Your task to perform on an android device: install app "Truecaller" Image 0: 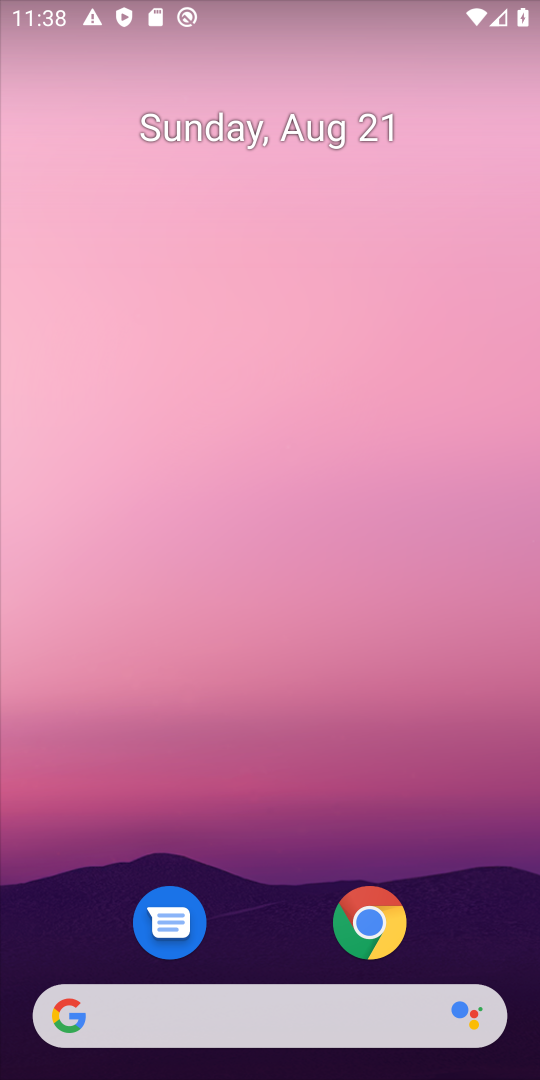
Step 0: drag from (258, 973) to (326, 7)
Your task to perform on an android device: install app "Truecaller" Image 1: 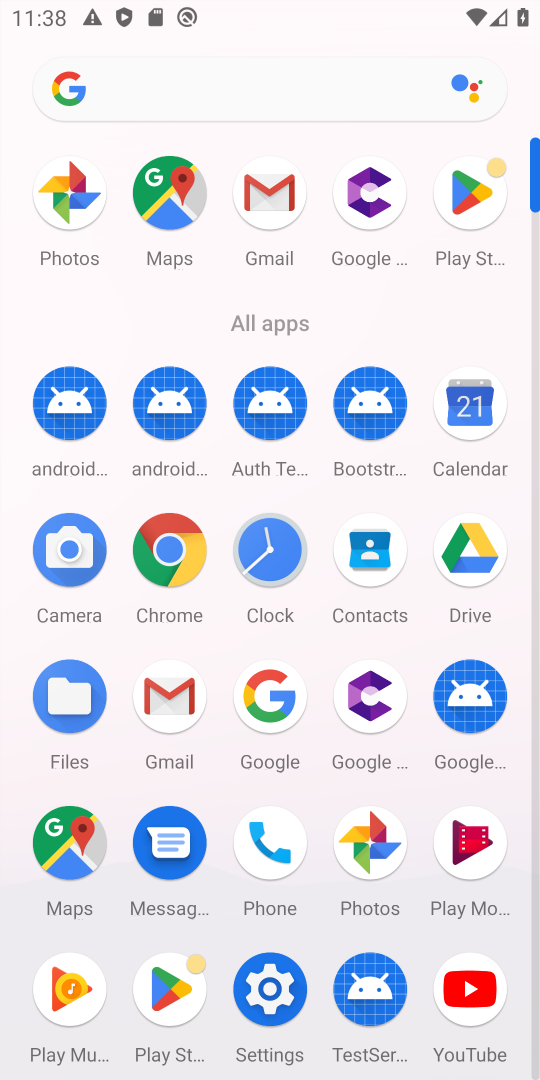
Step 1: click (172, 972)
Your task to perform on an android device: install app "Truecaller" Image 2: 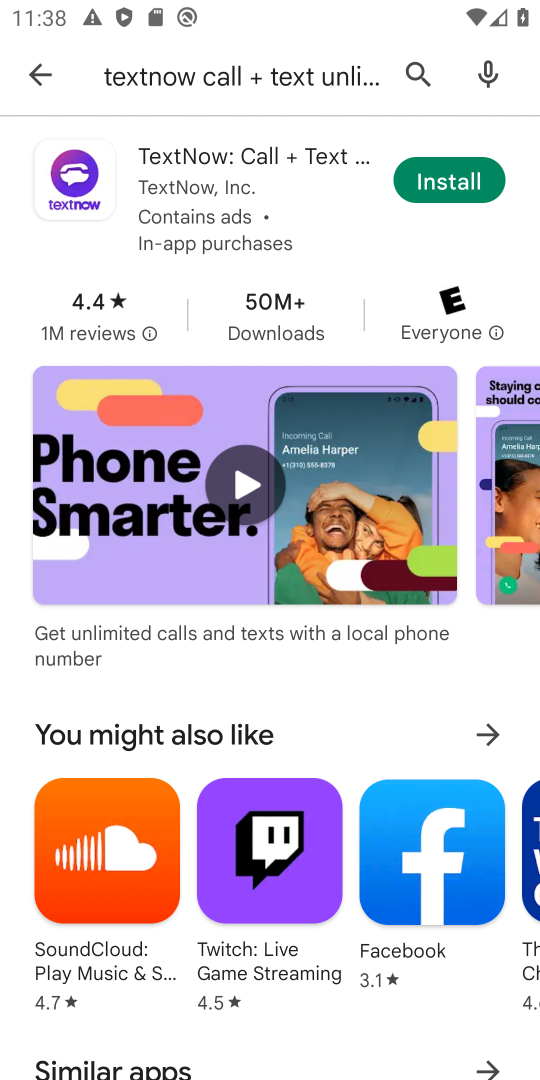
Step 2: click (46, 72)
Your task to perform on an android device: install app "Truecaller" Image 3: 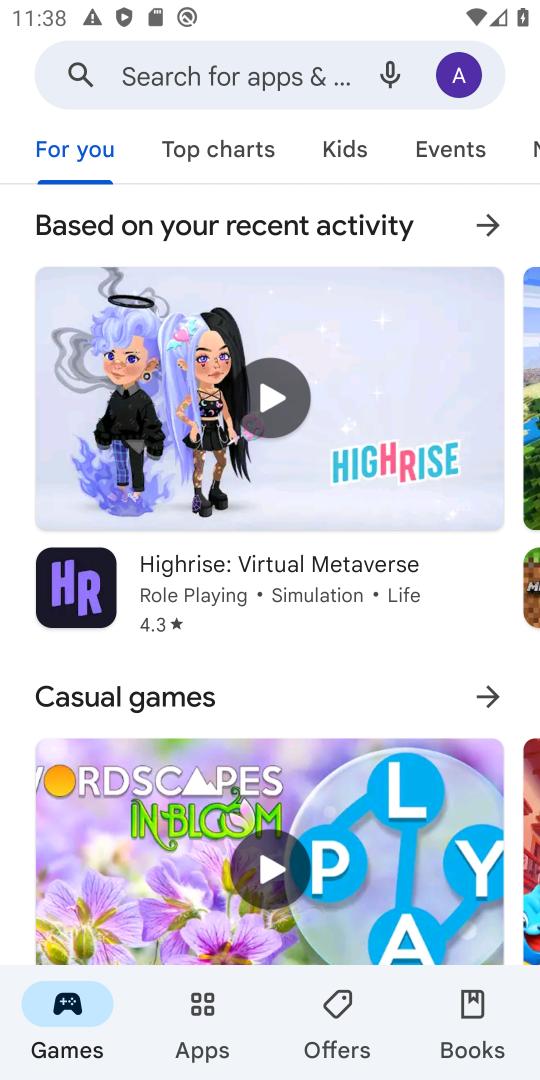
Step 3: type "Truecaller"
Your task to perform on an android device: install app "Truecaller" Image 4: 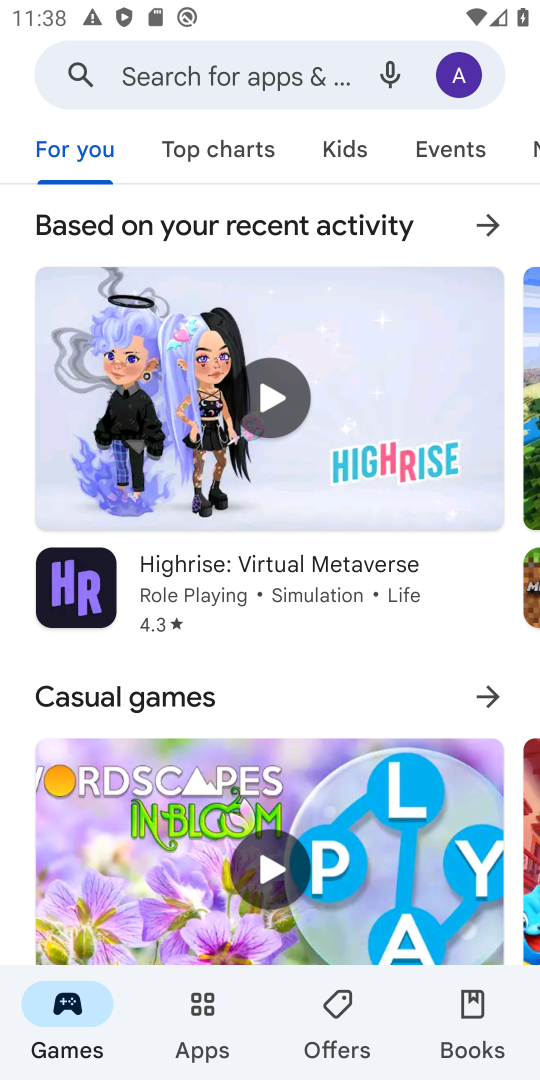
Step 4: click (187, 87)
Your task to perform on an android device: install app "Truecaller" Image 5: 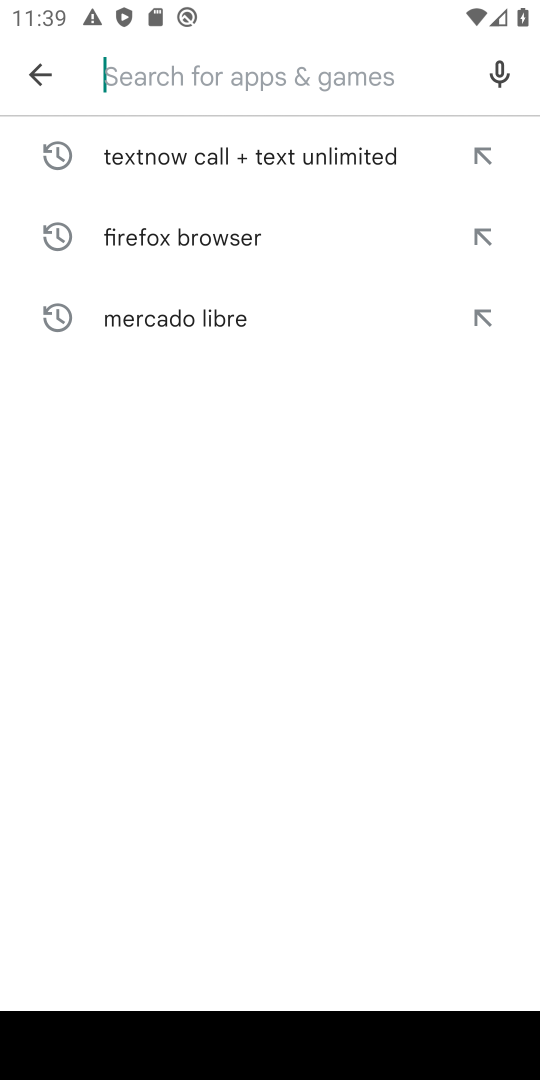
Step 5: type "Truecaller"
Your task to perform on an android device: install app "Truecaller" Image 6: 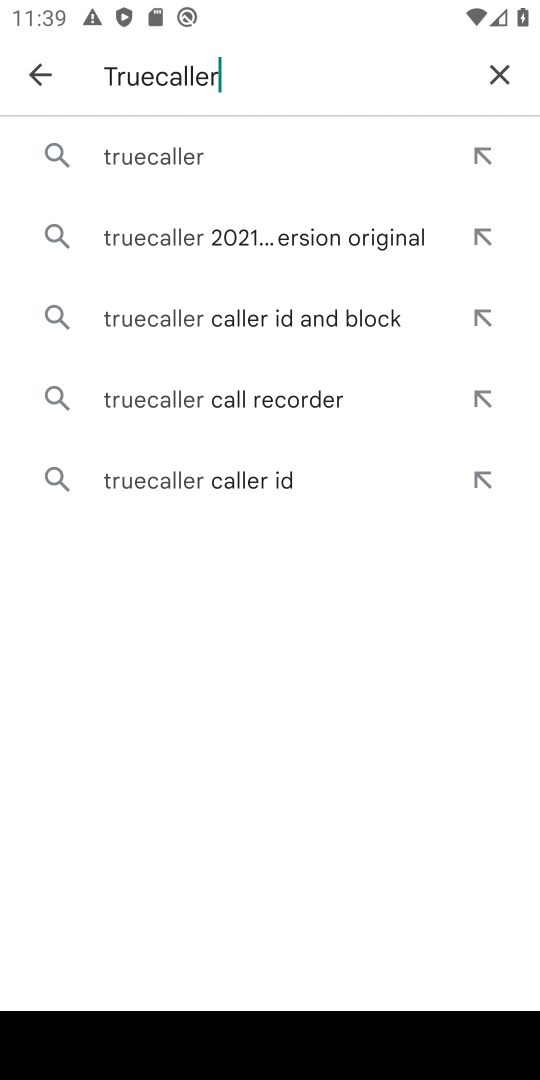
Step 6: click (134, 146)
Your task to perform on an android device: install app "Truecaller" Image 7: 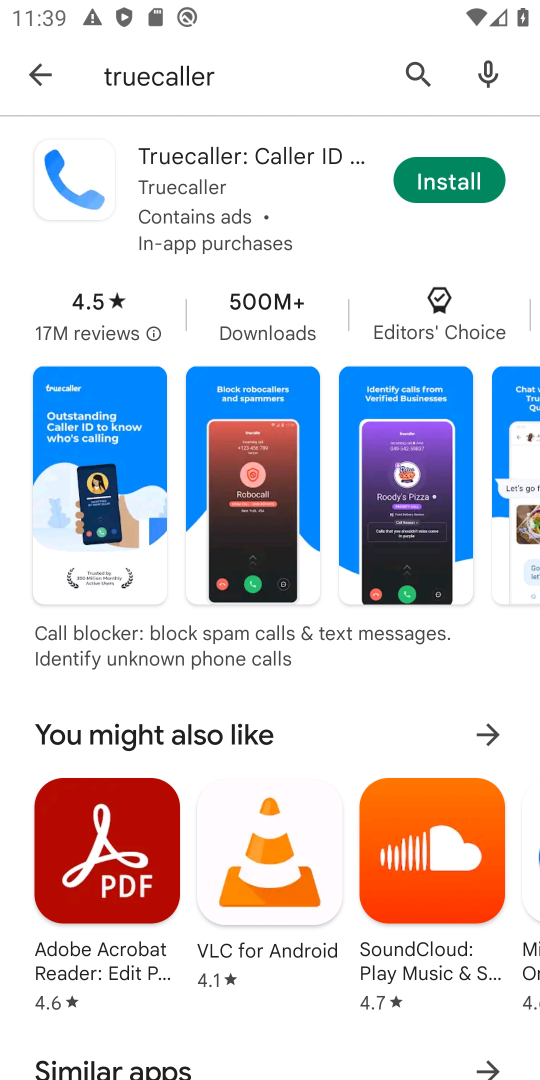
Step 7: click (436, 186)
Your task to perform on an android device: install app "Truecaller" Image 8: 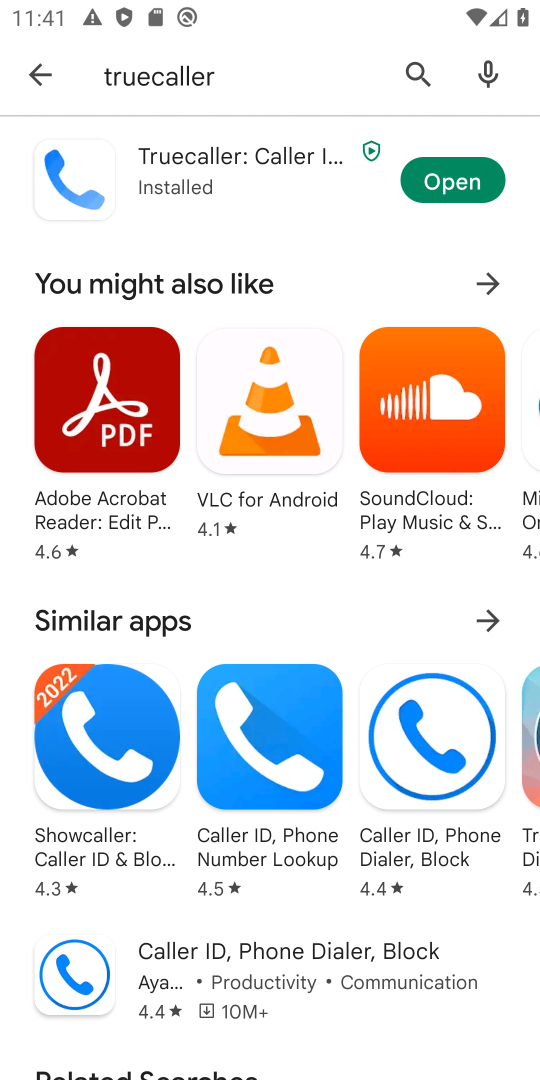
Step 8: task complete